Your task to perform on an android device: Show me recent news Image 0: 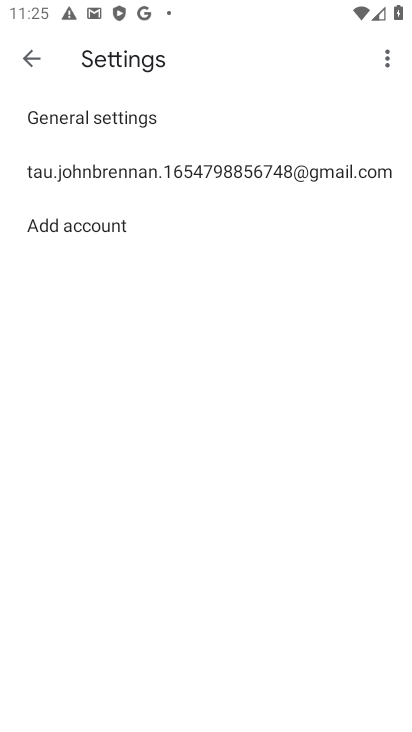
Step 0: press back button
Your task to perform on an android device: Show me recent news Image 1: 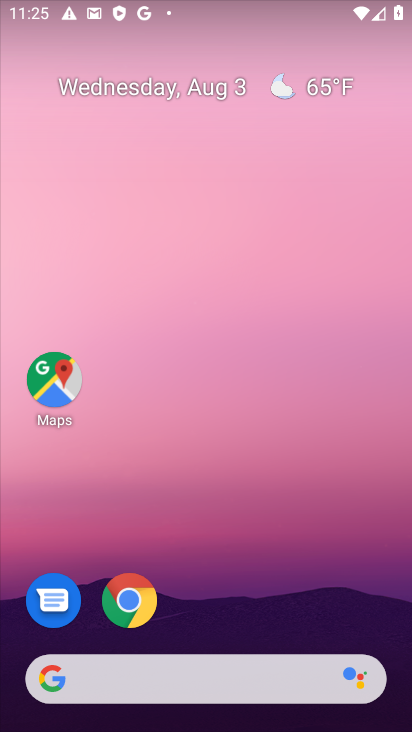
Step 1: click (262, 670)
Your task to perform on an android device: Show me recent news Image 2: 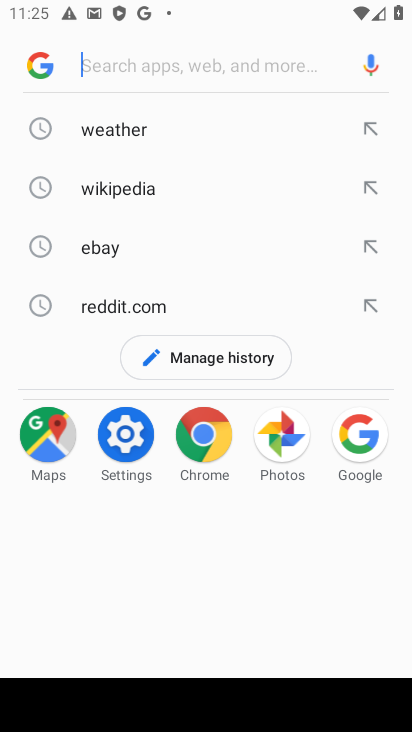
Step 2: type "recent news"
Your task to perform on an android device: Show me recent news Image 3: 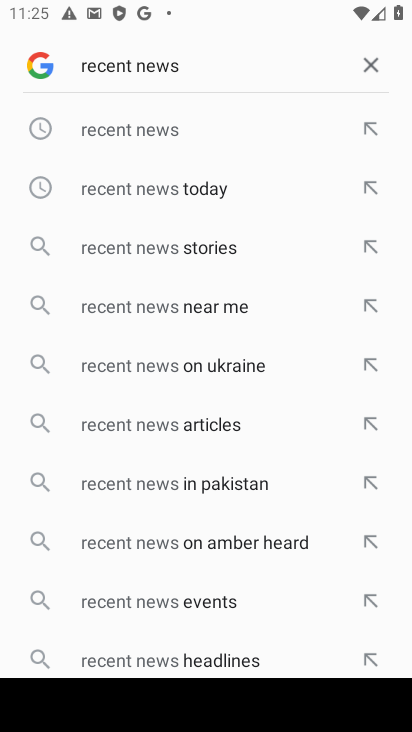
Step 3: click (118, 113)
Your task to perform on an android device: Show me recent news Image 4: 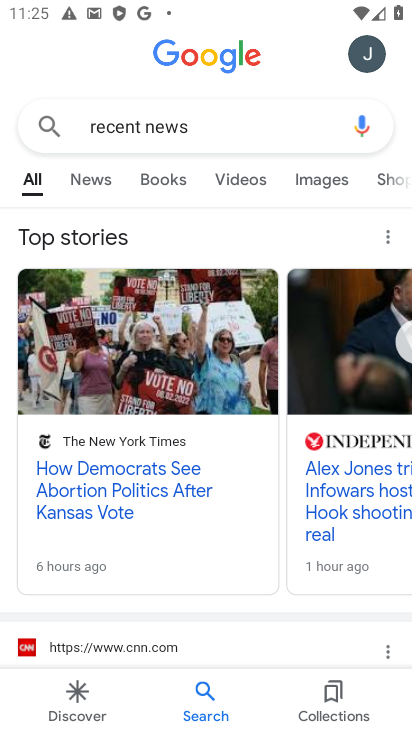
Step 4: task complete